Your task to perform on an android device: open the mobile data screen to see how much data has been used Image 0: 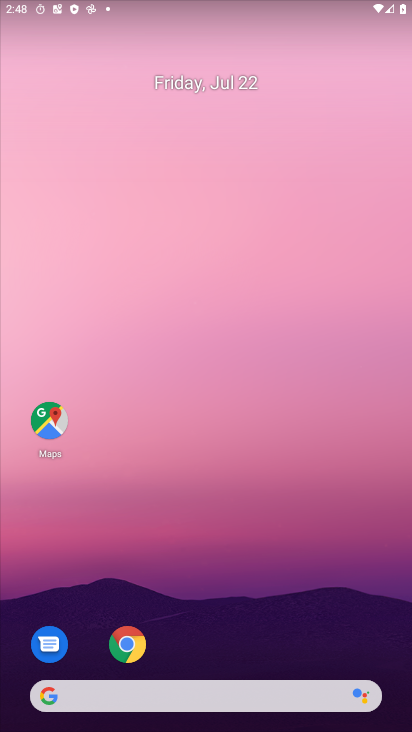
Step 0: drag from (287, 586) to (346, 317)
Your task to perform on an android device: open the mobile data screen to see how much data has been used Image 1: 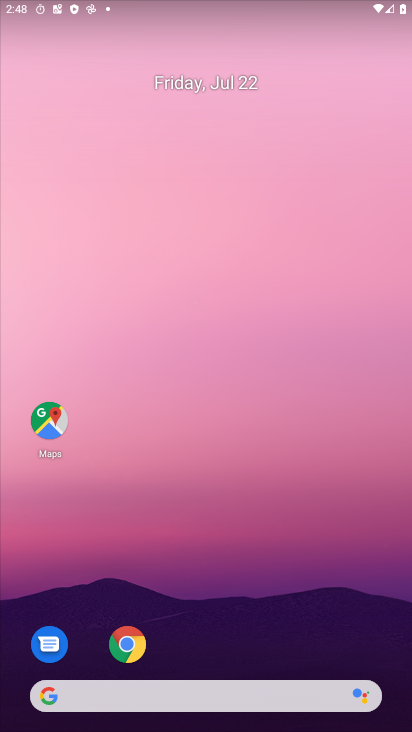
Step 1: drag from (218, 683) to (242, 396)
Your task to perform on an android device: open the mobile data screen to see how much data has been used Image 2: 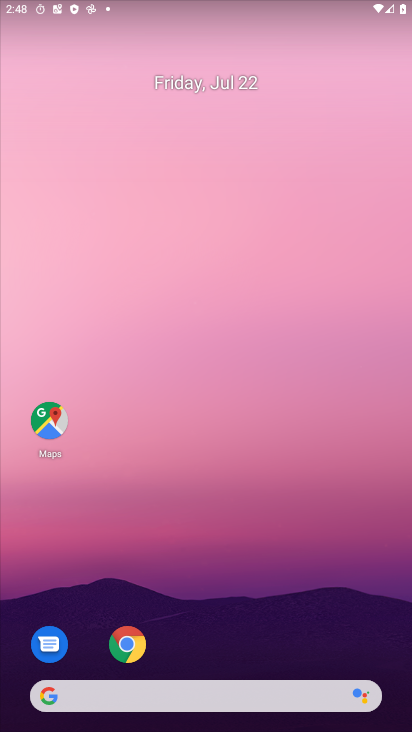
Step 2: drag from (239, 632) to (287, 138)
Your task to perform on an android device: open the mobile data screen to see how much data has been used Image 3: 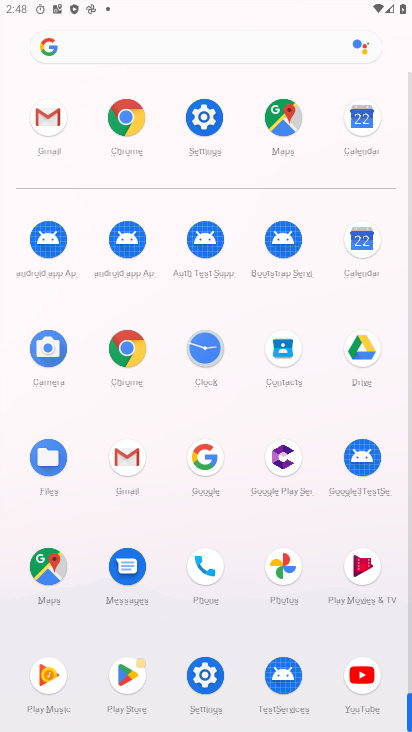
Step 3: click (287, 137)
Your task to perform on an android device: open the mobile data screen to see how much data has been used Image 4: 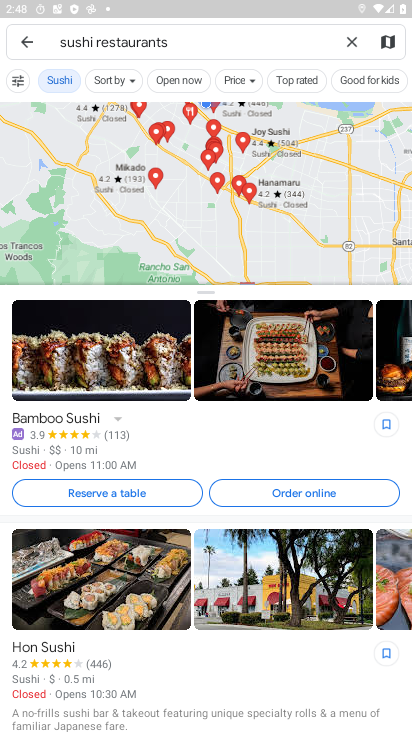
Step 4: press home button
Your task to perform on an android device: open the mobile data screen to see how much data has been used Image 5: 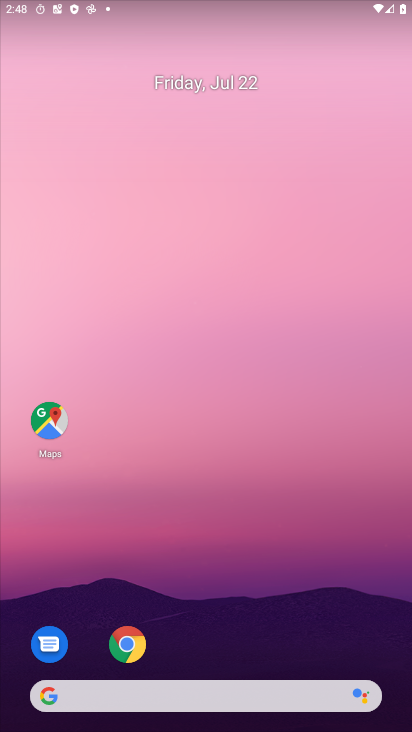
Step 5: drag from (303, 609) to (385, 93)
Your task to perform on an android device: open the mobile data screen to see how much data has been used Image 6: 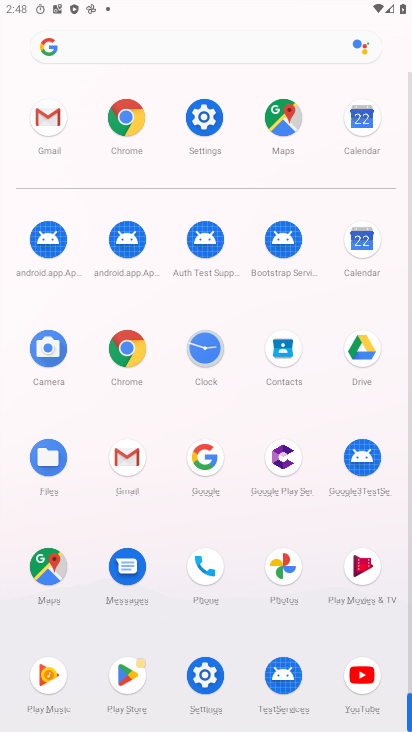
Step 6: drag from (192, 354) to (194, 67)
Your task to perform on an android device: open the mobile data screen to see how much data has been used Image 7: 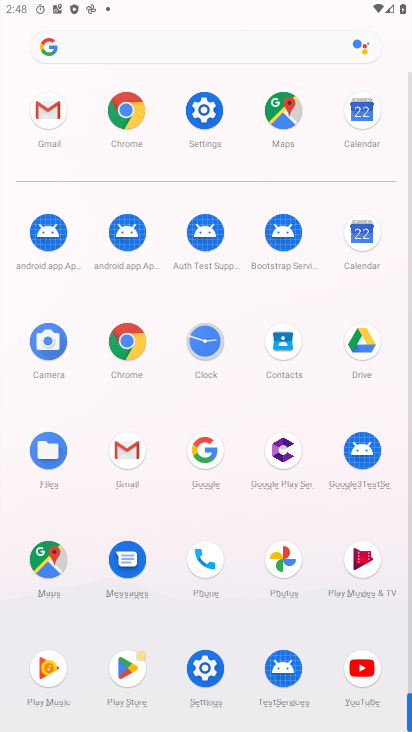
Step 7: click (202, 689)
Your task to perform on an android device: open the mobile data screen to see how much data has been used Image 8: 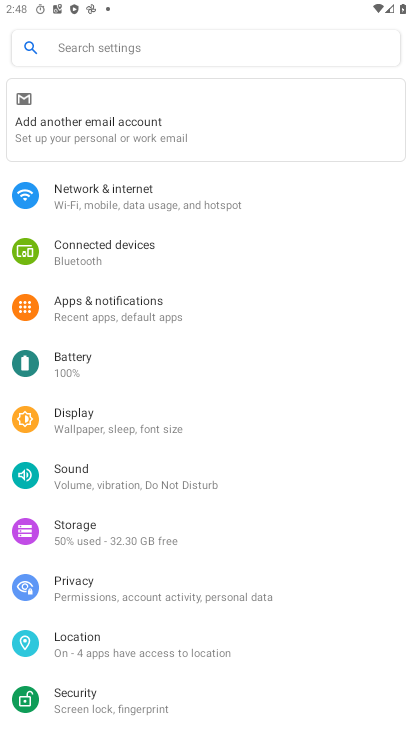
Step 8: click (213, 204)
Your task to perform on an android device: open the mobile data screen to see how much data has been used Image 9: 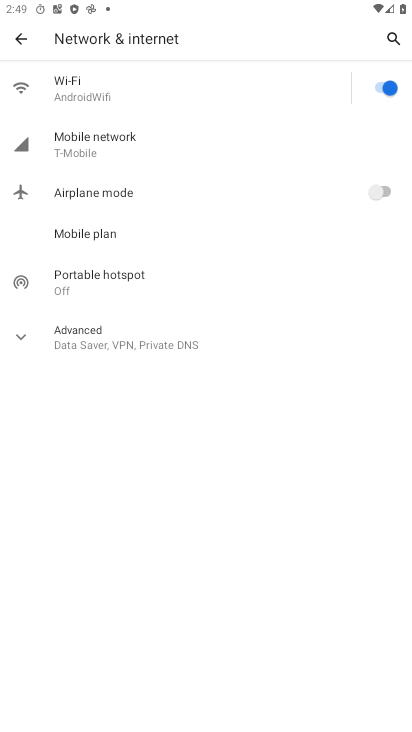
Step 9: click (184, 163)
Your task to perform on an android device: open the mobile data screen to see how much data has been used Image 10: 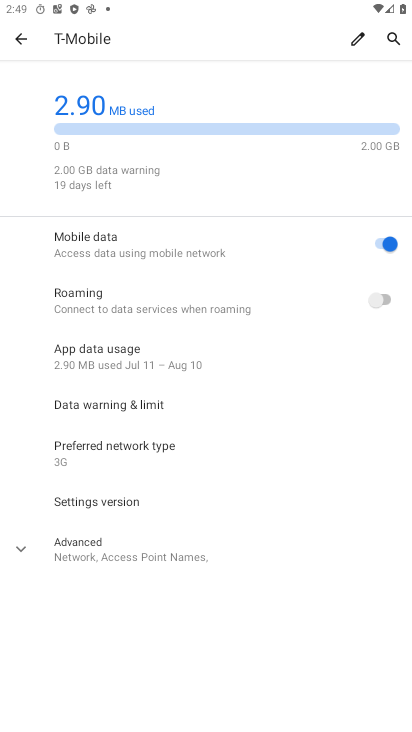
Step 10: click (184, 163)
Your task to perform on an android device: open the mobile data screen to see how much data has been used Image 11: 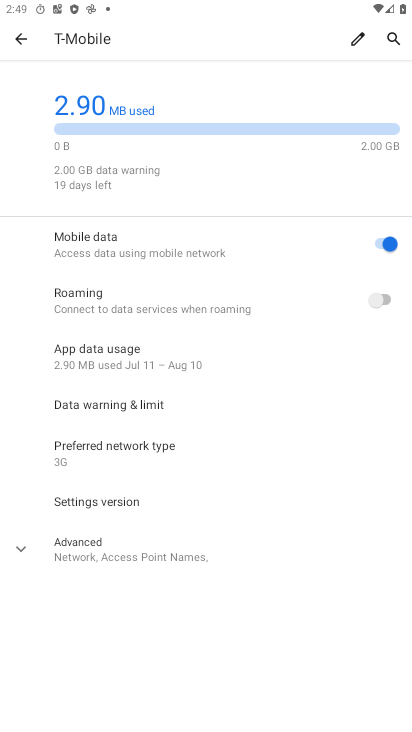
Step 11: click (161, 367)
Your task to perform on an android device: open the mobile data screen to see how much data has been used Image 12: 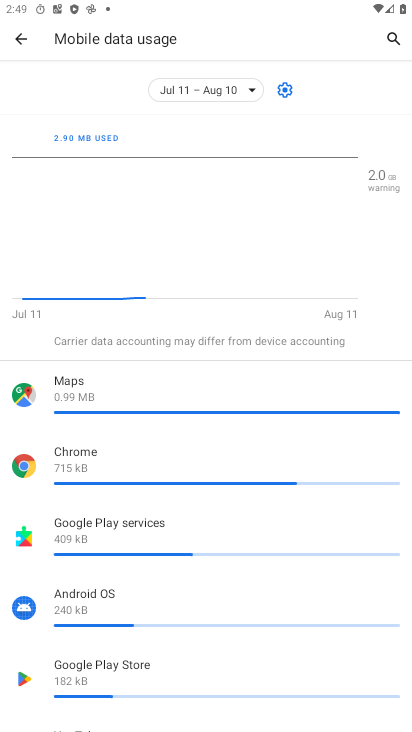
Step 12: task complete